Your task to perform on an android device: Go to eBay Image 0: 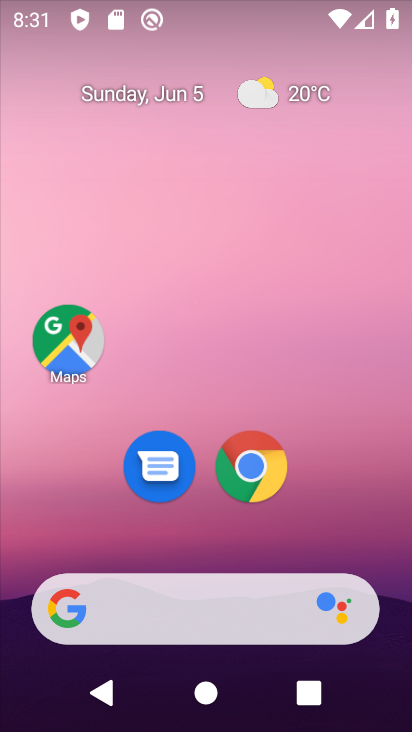
Step 0: click (247, 473)
Your task to perform on an android device: Go to eBay Image 1: 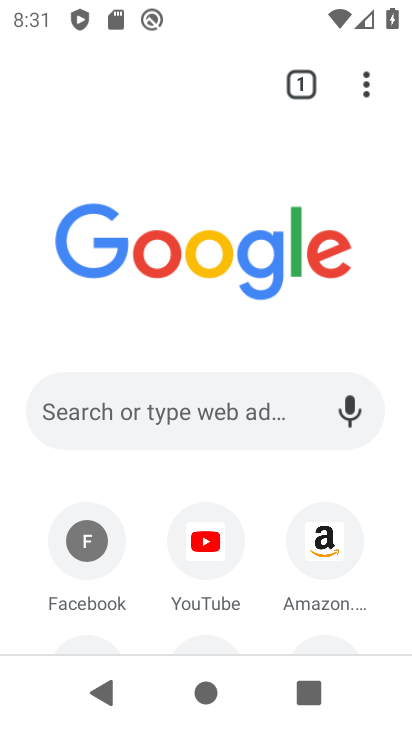
Step 1: drag from (246, 577) to (269, 201)
Your task to perform on an android device: Go to eBay Image 2: 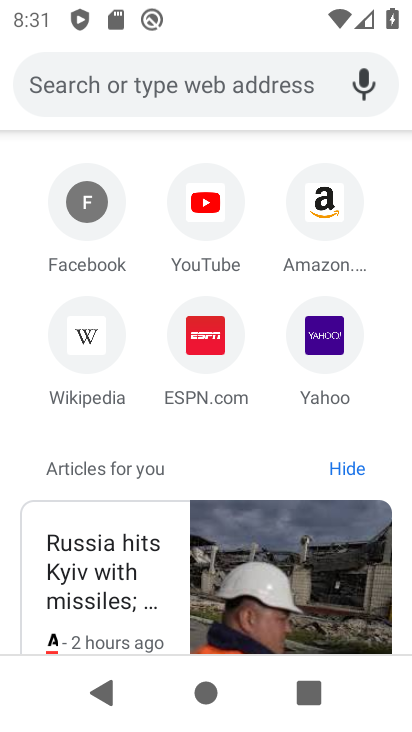
Step 2: drag from (208, 420) to (232, 293)
Your task to perform on an android device: Go to eBay Image 3: 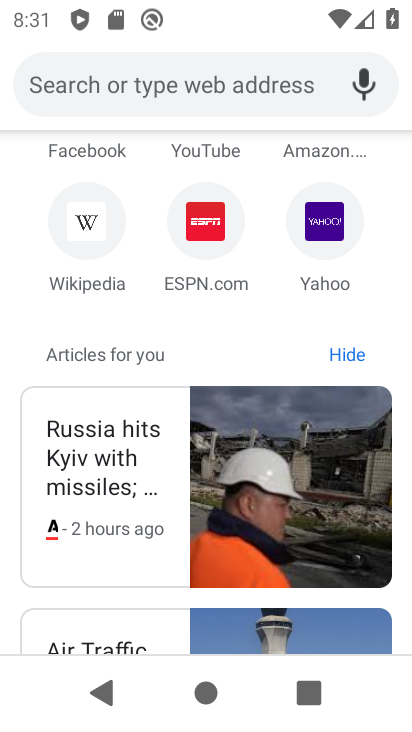
Step 3: drag from (153, 576) to (147, 288)
Your task to perform on an android device: Go to eBay Image 4: 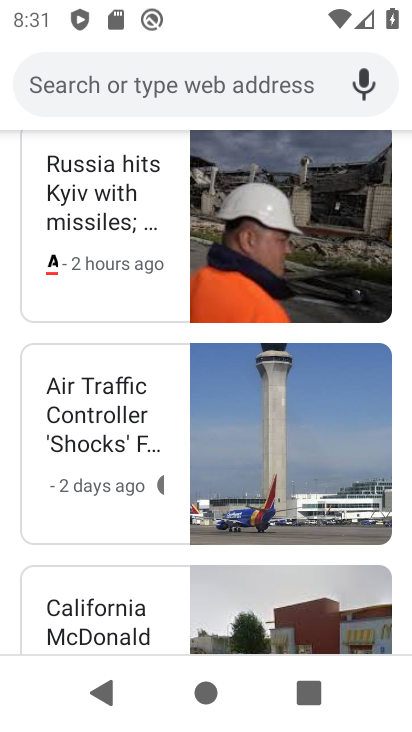
Step 4: click (172, 82)
Your task to perform on an android device: Go to eBay Image 5: 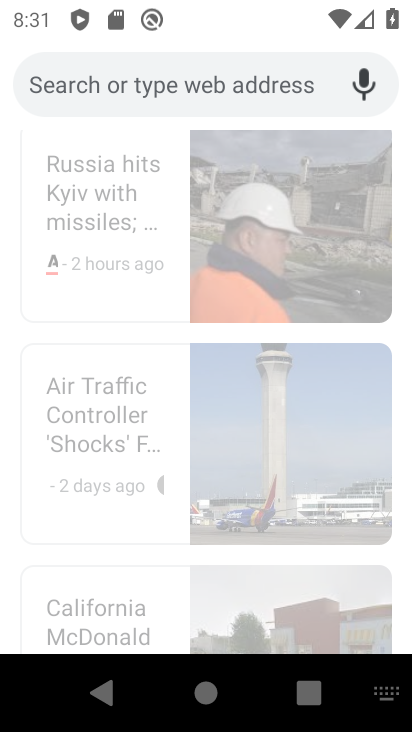
Step 5: type "www.ebay.com"
Your task to perform on an android device: Go to eBay Image 6: 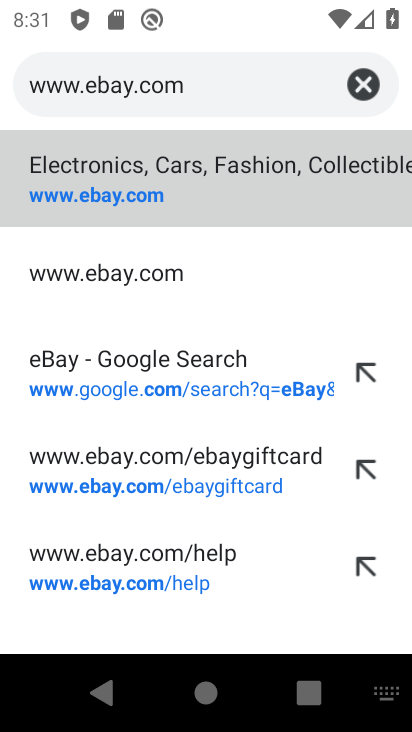
Step 6: click (137, 202)
Your task to perform on an android device: Go to eBay Image 7: 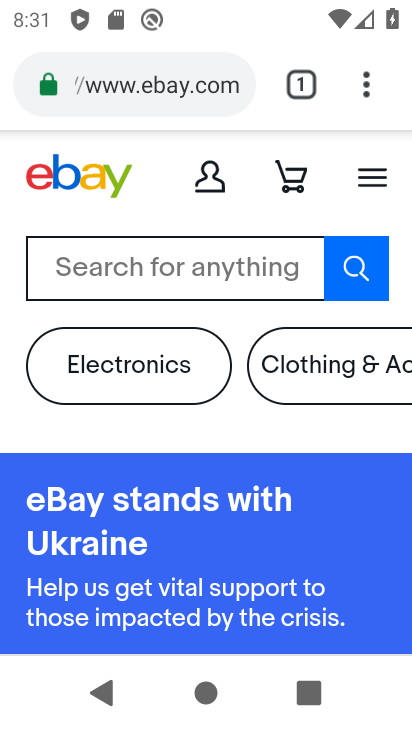
Step 7: task complete